Your task to perform on an android device: Go to eBay Image 0: 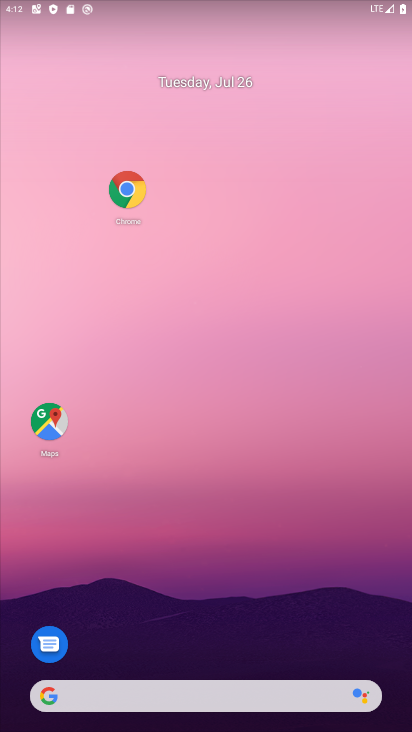
Step 0: drag from (216, 675) to (245, 293)
Your task to perform on an android device: Go to eBay Image 1: 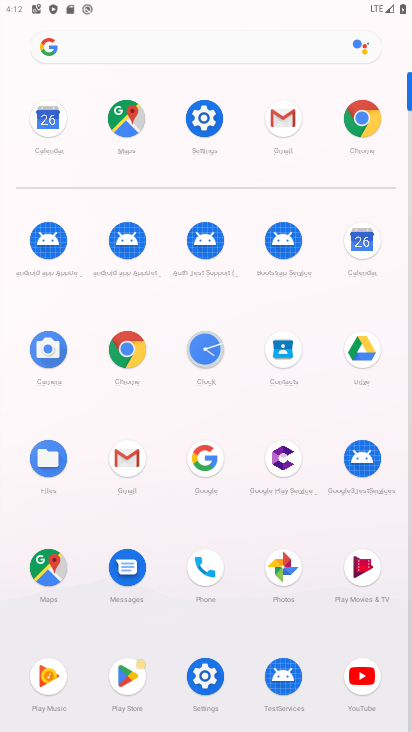
Step 1: click (210, 450)
Your task to perform on an android device: Go to eBay Image 2: 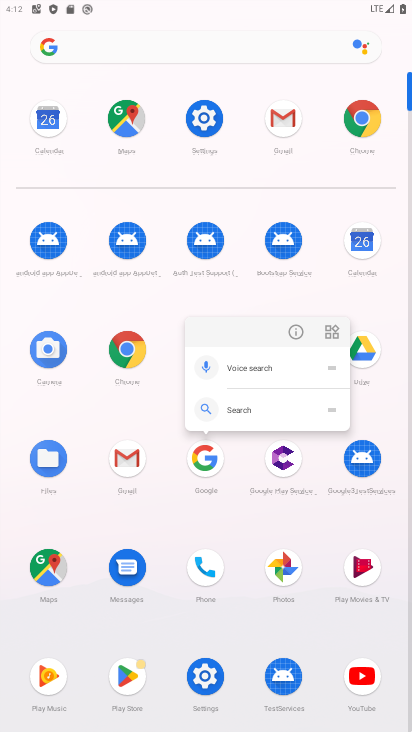
Step 2: click (197, 459)
Your task to perform on an android device: Go to eBay Image 3: 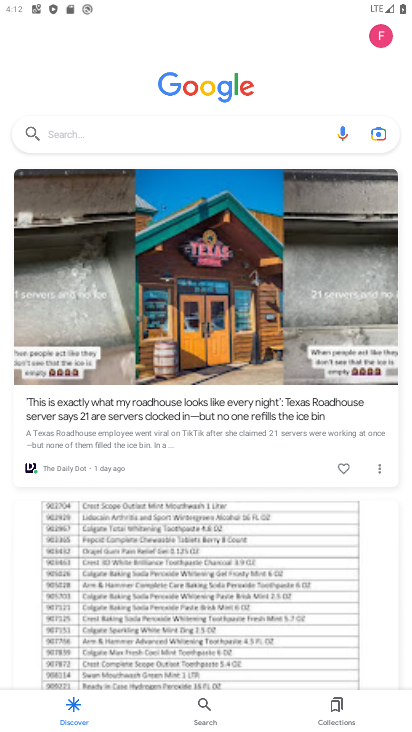
Step 3: click (101, 129)
Your task to perform on an android device: Go to eBay Image 4: 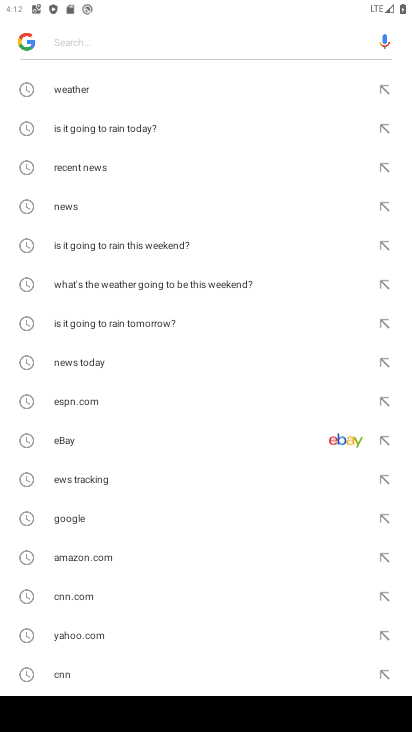
Step 4: click (78, 435)
Your task to perform on an android device: Go to eBay Image 5: 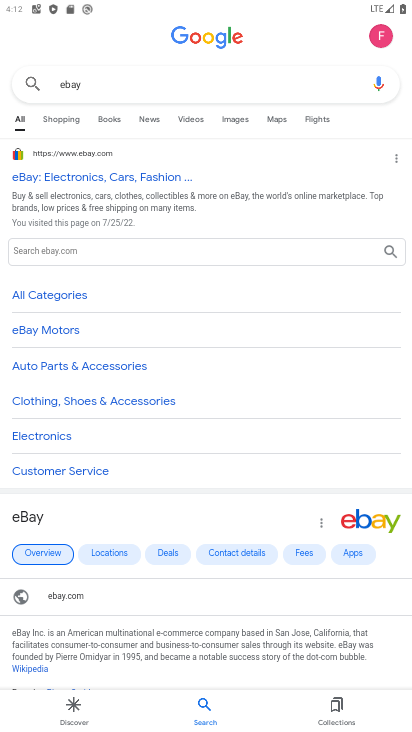
Step 5: click (124, 174)
Your task to perform on an android device: Go to eBay Image 6: 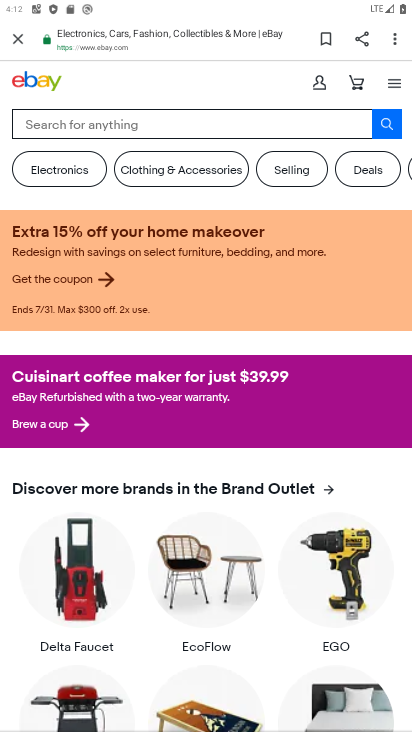
Step 6: task complete